Your task to perform on an android device: turn on airplane mode Image 0: 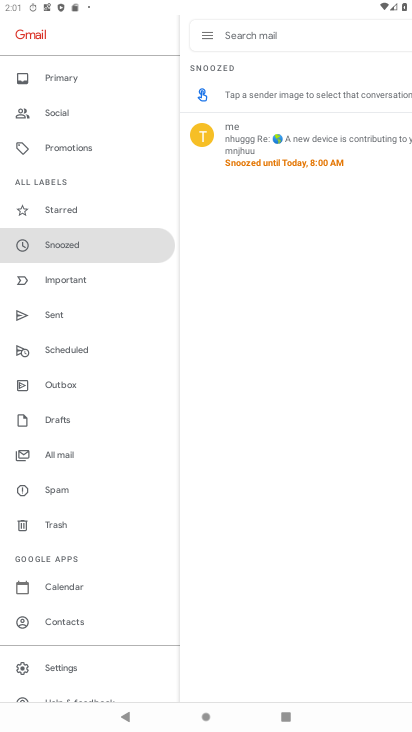
Step 0: press home button
Your task to perform on an android device: turn on airplane mode Image 1: 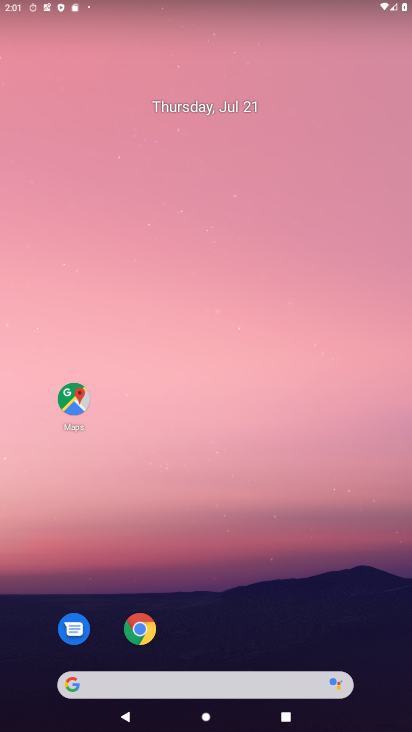
Step 1: drag from (22, 683) to (172, 64)
Your task to perform on an android device: turn on airplane mode Image 2: 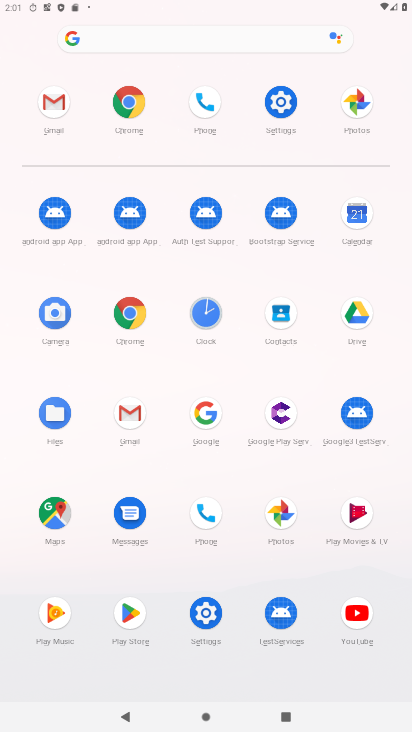
Step 2: click (203, 612)
Your task to perform on an android device: turn on airplane mode Image 3: 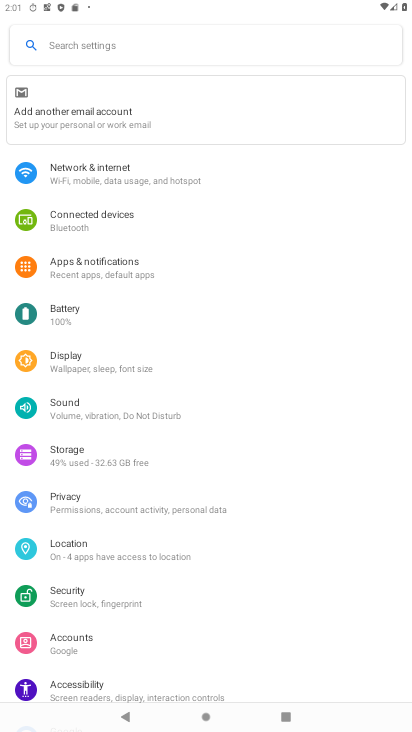
Step 3: click (114, 162)
Your task to perform on an android device: turn on airplane mode Image 4: 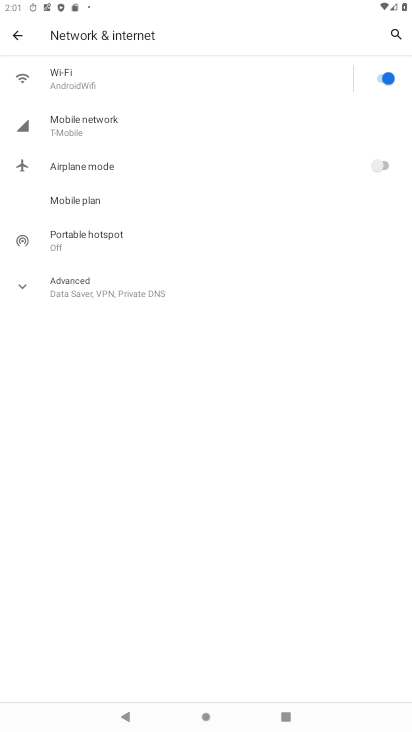
Step 4: click (374, 163)
Your task to perform on an android device: turn on airplane mode Image 5: 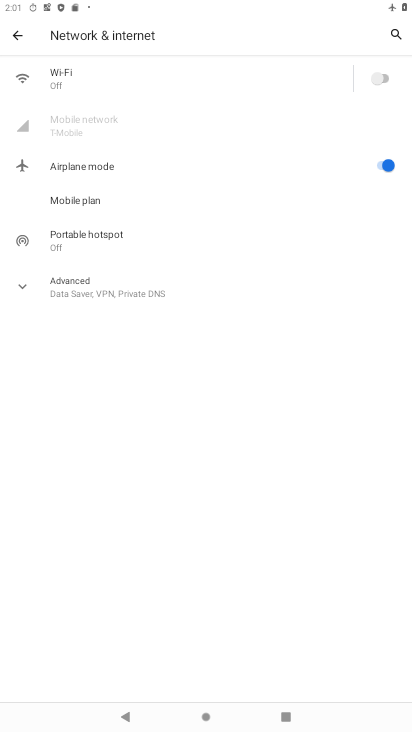
Step 5: task complete